Your task to perform on an android device: Open display settings Image 0: 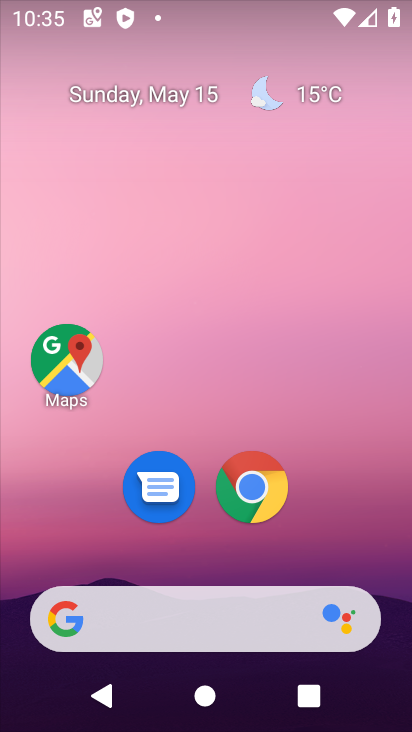
Step 0: drag from (396, 625) to (348, 124)
Your task to perform on an android device: Open display settings Image 1: 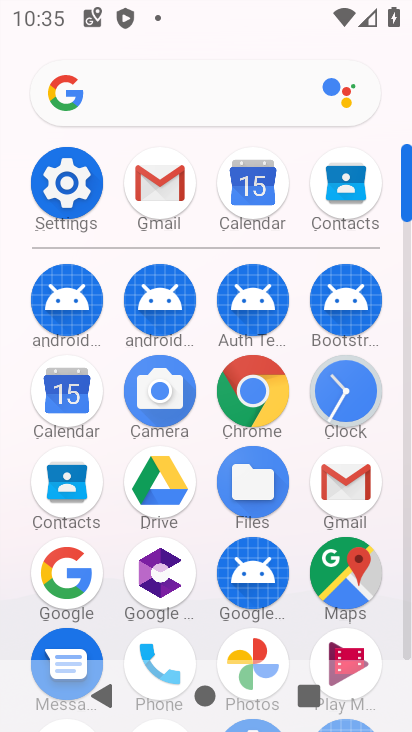
Step 1: click (407, 645)
Your task to perform on an android device: Open display settings Image 2: 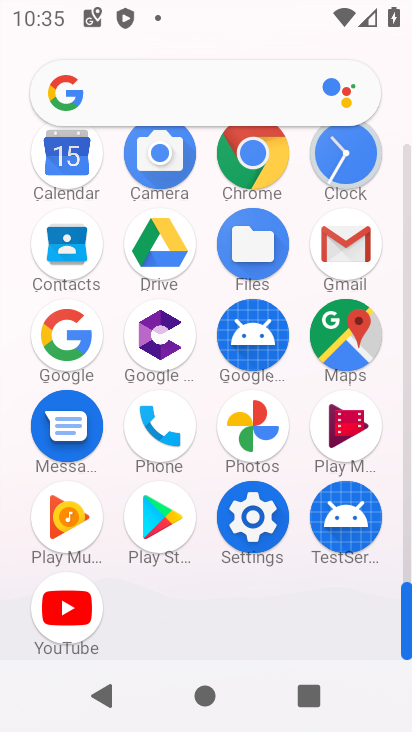
Step 2: click (254, 515)
Your task to perform on an android device: Open display settings Image 3: 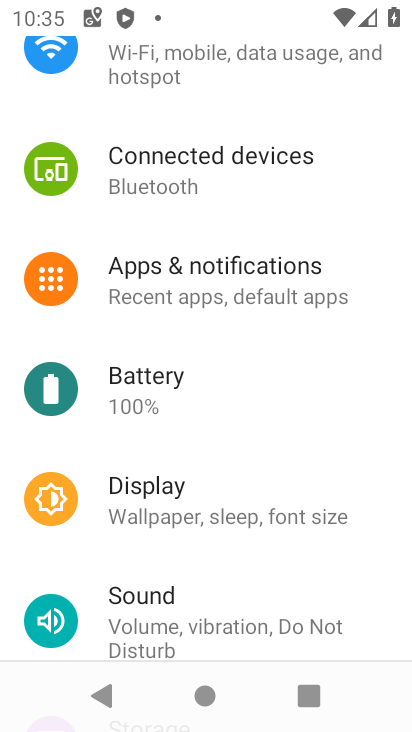
Step 3: click (168, 503)
Your task to perform on an android device: Open display settings Image 4: 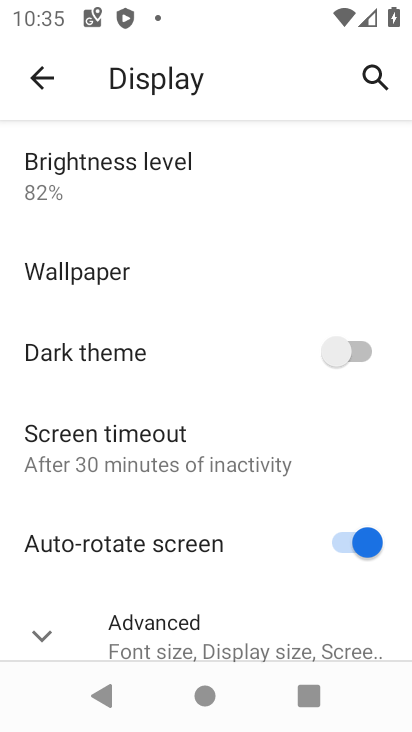
Step 4: click (49, 636)
Your task to perform on an android device: Open display settings Image 5: 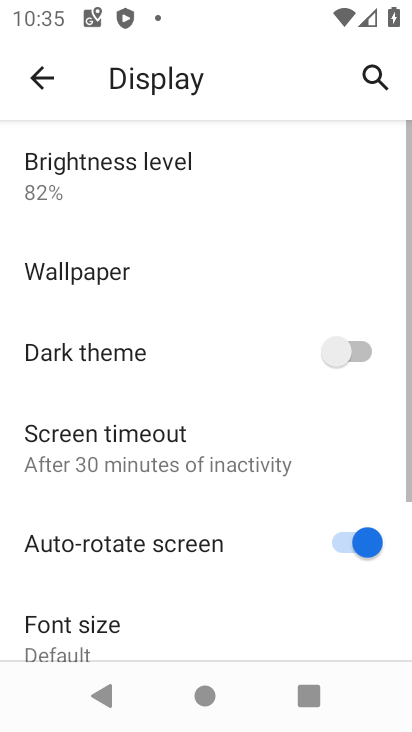
Step 5: task complete